Your task to perform on an android device: Set the phone to "Do not disturb". Image 0: 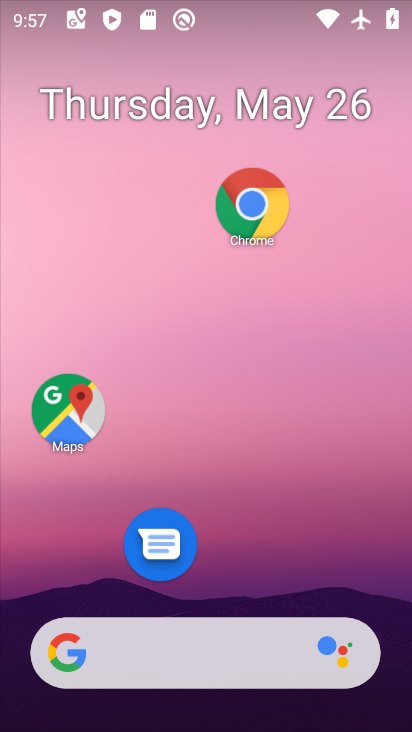
Step 0: drag from (267, 9) to (263, 549)
Your task to perform on an android device: Set the phone to "Do not disturb". Image 1: 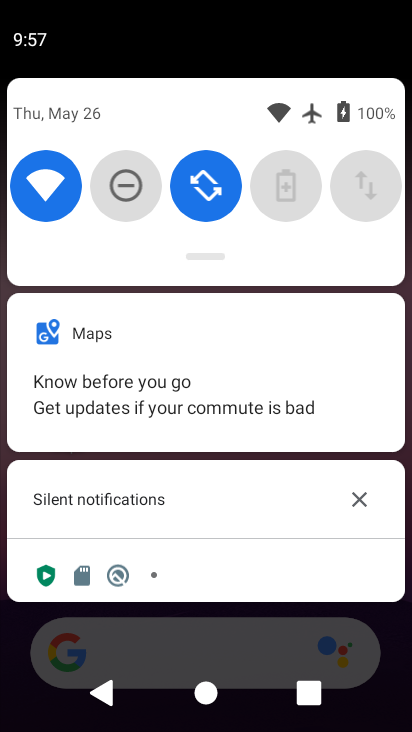
Step 1: click (121, 184)
Your task to perform on an android device: Set the phone to "Do not disturb". Image 2: 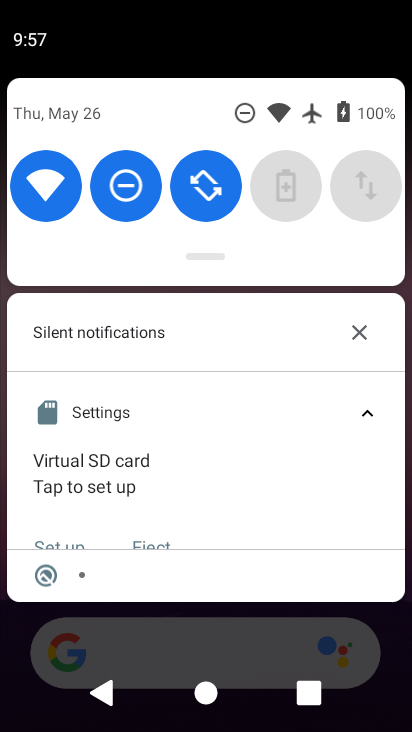
Step 2: task complete